Your task to perform on an android device: turn vacation reply on in the gmail app Image 0: 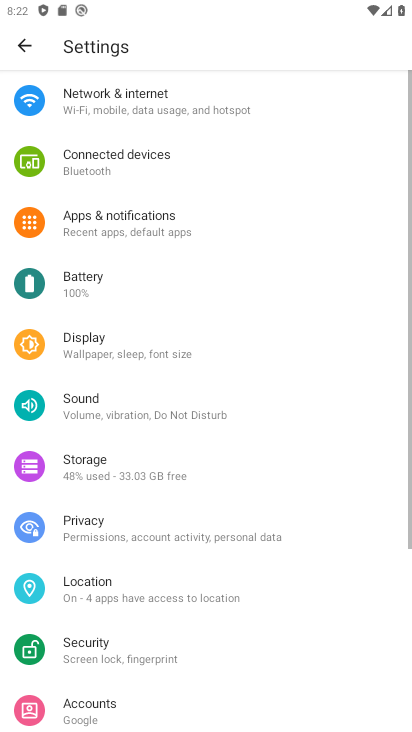
Step 0: press home button
Your task to perform on an android device: turn vacation reply on in the gmail app Image 1: 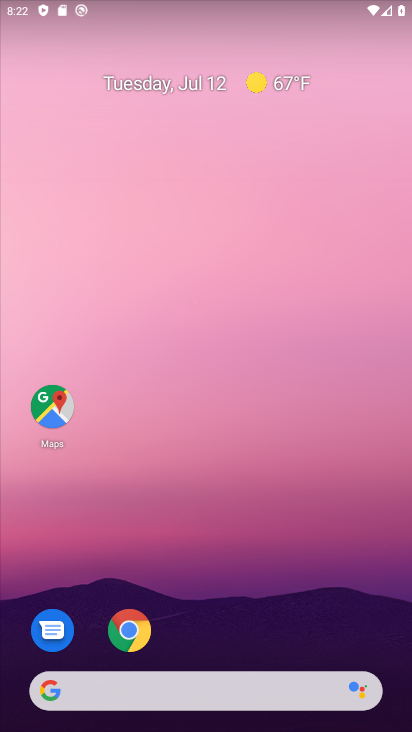
Step 1: drag from (224, 613) to (205, 72)
Your task to perform on an android device: turn vacation reply on in the gmail app Image 2: 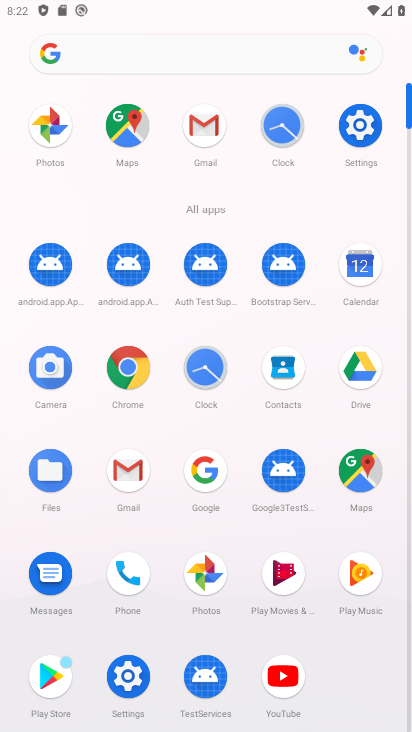
Step 2: click (213, 117)
Your task to perform on an android device: turn vacation reply on in the gmail app Image 3: 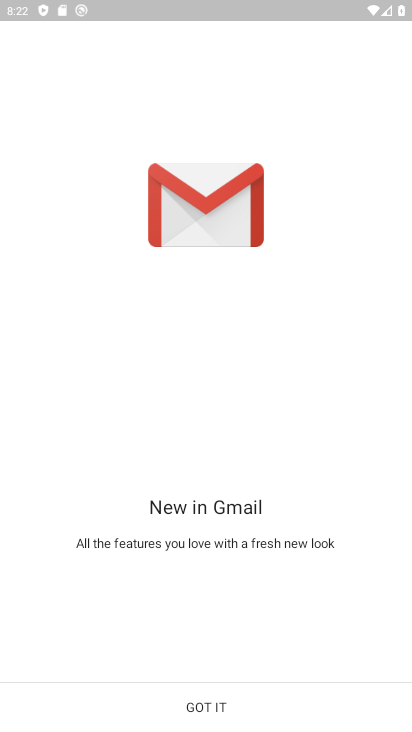
Step 3: click (215, 706)
Your task to perform on an android device: turn vacation reply on in the gmail app Image 4: 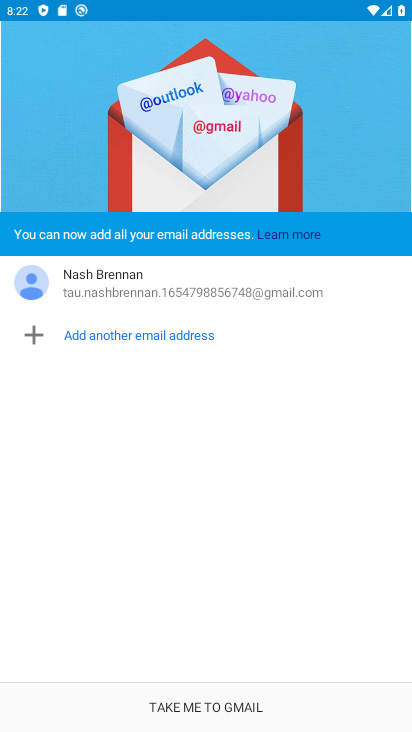
Step 4: click (227, 704)
Your task to perform on an android device: turn vacation reply on in the gmail app Image 5: 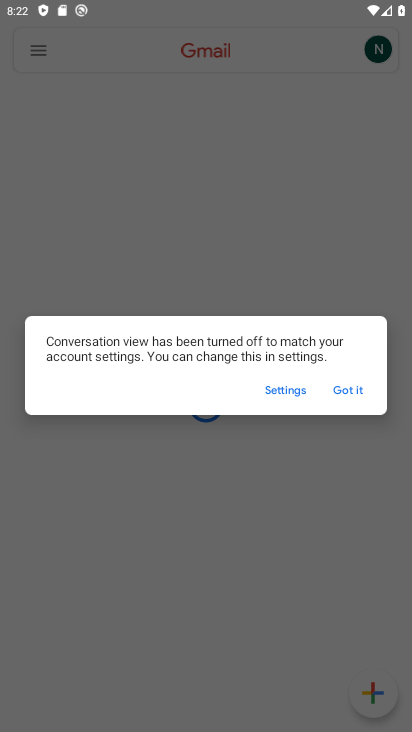
Step 5: click (357, 388)
Your task to perform on an android device: turn vacation reply on in the gmail app Image 6: 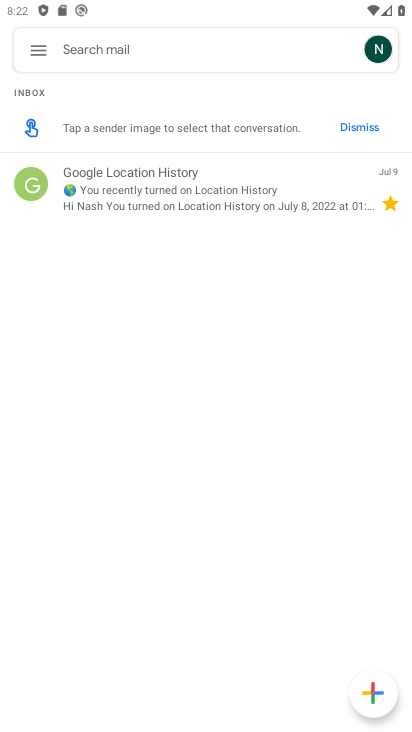
Step 6: click (42, 53)
Your task to perform on an android device: turn vacation reply on in the gmail app Image 7: 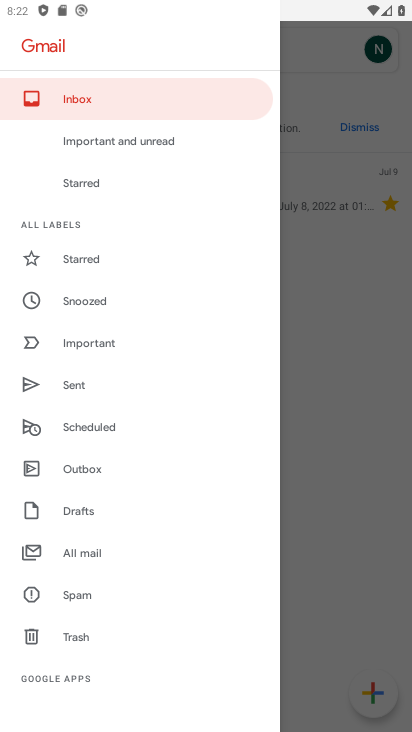
Step 7: drag from (94, 687) to (95, 361)
Your task to perform on an android device: turn vacation reply on in the gmail app Image 8: 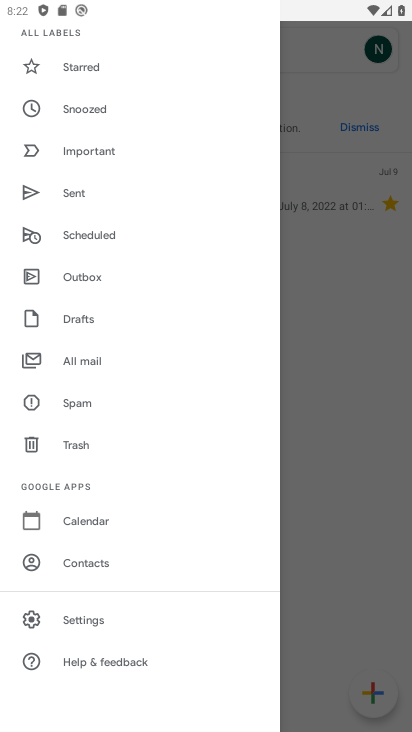
Step 8: click (98, 627)
Your task to perform on an android device: turn vacation reply on in the gmail app Image 9: 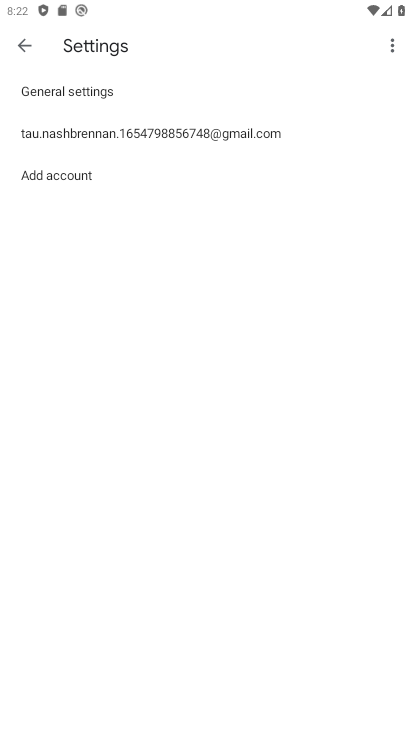
Step 9: click (157, 148)
Your task to perform on an android device: turn vacation reply on in the gmail app Image 10: 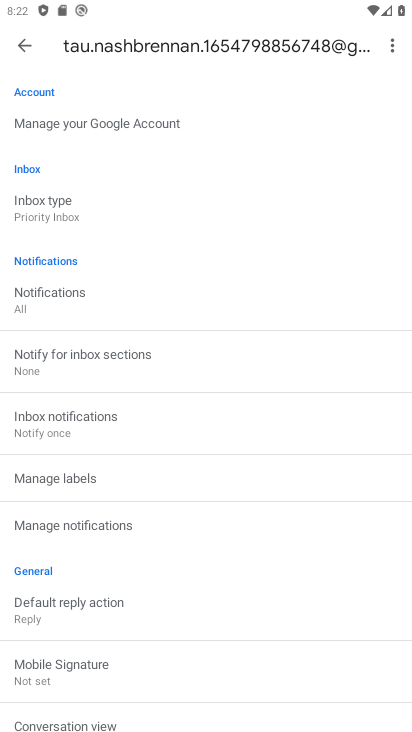
Step 10: drag from (116, 626) to (108, 319)
Your task to perform on an android device: turn vacation reply on in the gmail app Image 11: 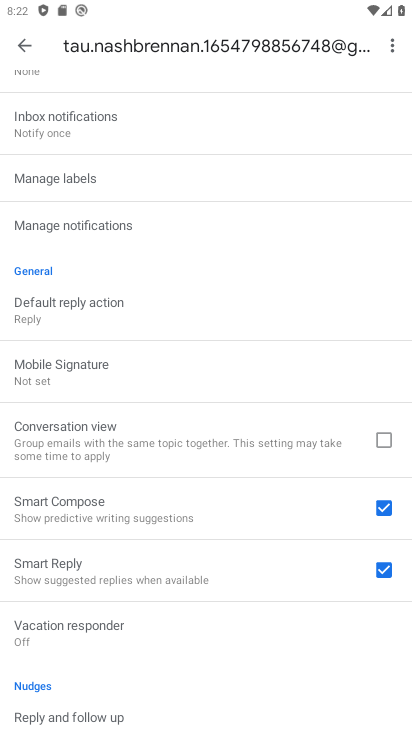
Step 11: drag from (126, 626) to (112, 354)
Your task to perform on an android device: turn vacation reply on in the gmail app Image 12: 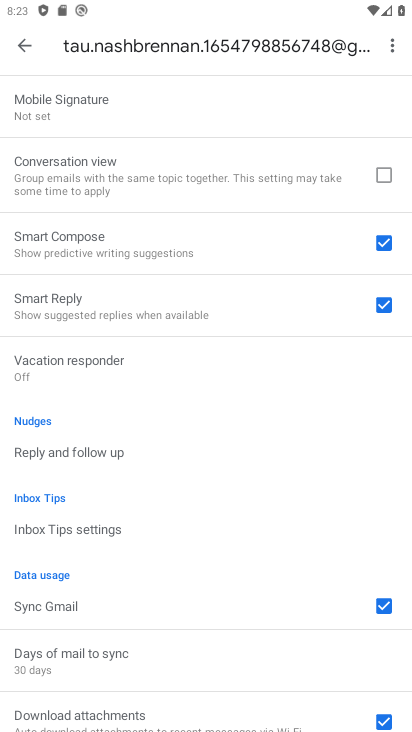
Step 12: click (115, 375)
Your task to perform on an android device: turn vacation reply on in the gmail app Image 13: 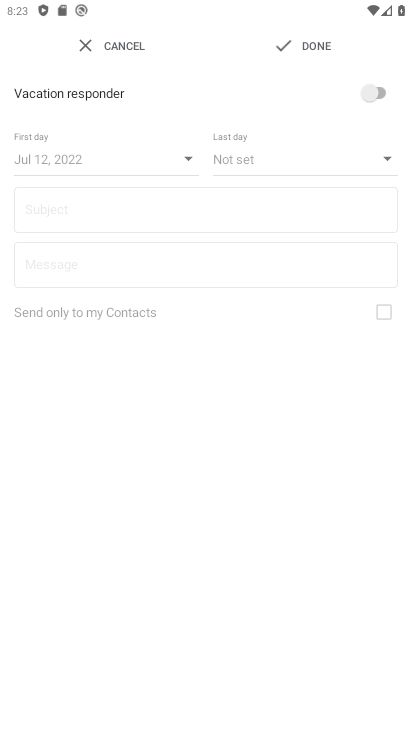
Step 13: click (377, 97)
Your task to perform on an android device: turn vacation reply on in the gmail app Image 14: 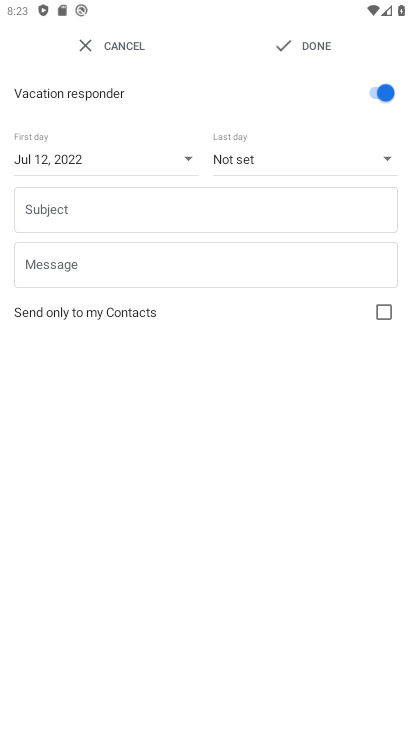
Step 14: click (189, 209)
Your task to perform on an android device: turn vacation reply on in the gmail app Image 15: 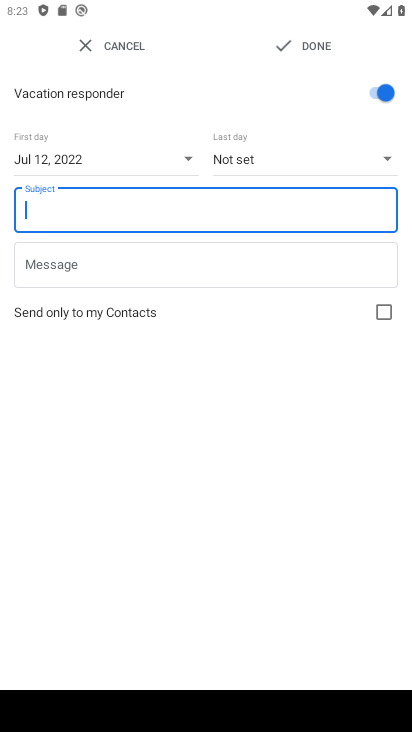
Step 15: type " vcgvg"
Your task to perform on an android device: turn vacation reply on in the gmail app Image 16: 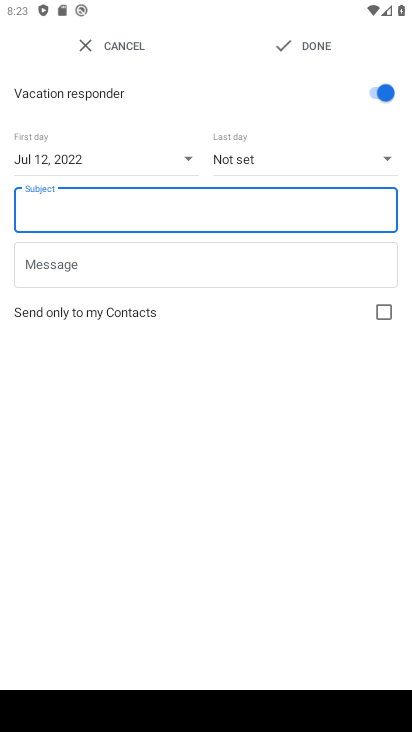
Step 16: click (295, 382)
Your task to perform on an android device: turn vacation reply on in the gmail app Image 17: 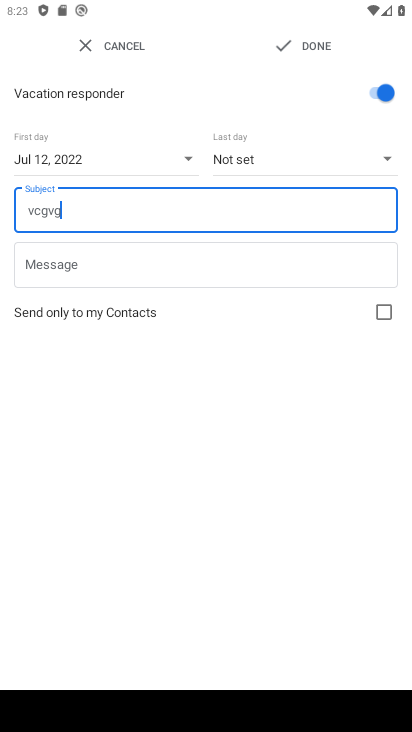
Step 17: click (308, 49)
Your task to perform on an android device: turn vacation reply on in the gmail app Image 18: 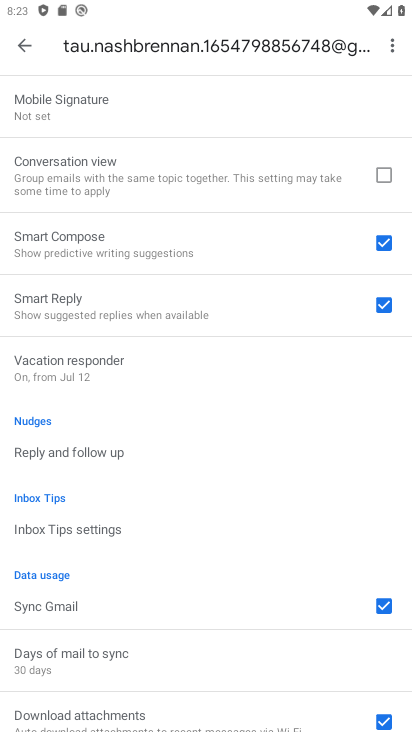
Step 18: task complete